Your task to perform on an android device: Open internet settings Image 0: 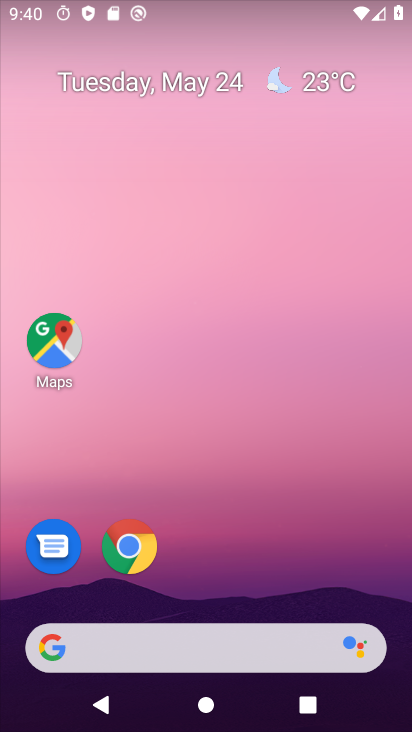
Step 0: drag from (256, 534) to (257, 0)
Your task to perform on an android device: Open internet settings Image 1: 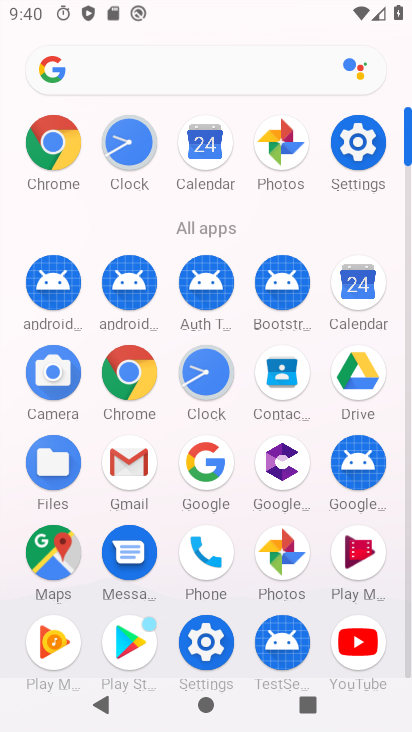
Step 1: click (357, 144)
Your task to perform on an android device: Open internet settings Image 2: 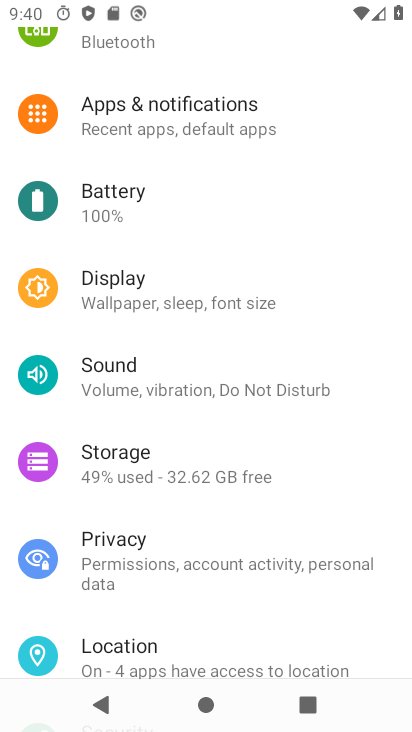
Step 2: drag from (166, 122) to (234, 578)
Your task to perform on an android device: Open internet settings Image 3: 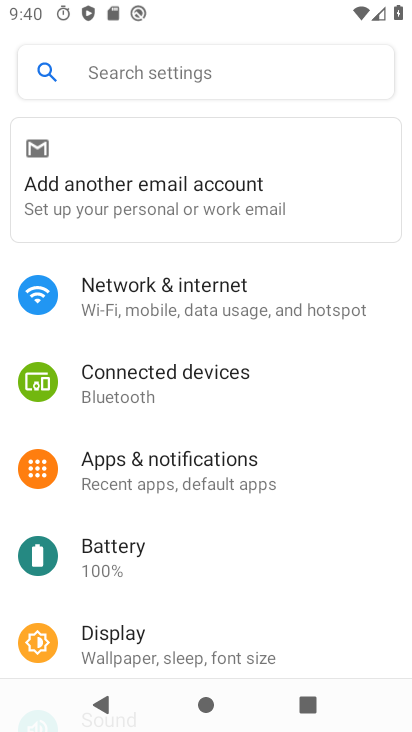
Step 3: click (178, 304)
Your task to perform on an android device: Open internet settings Image 4: 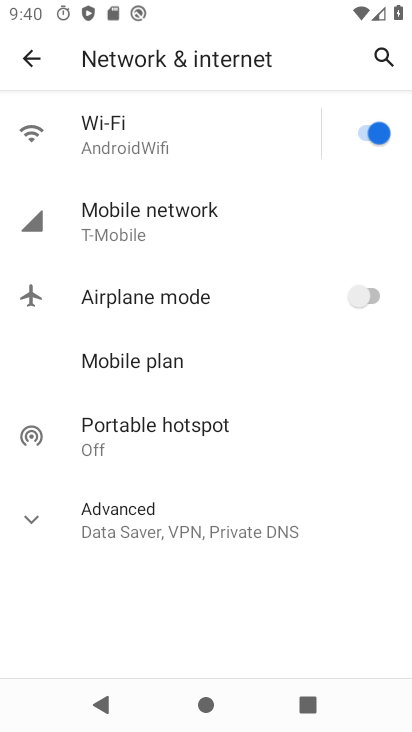
Step 4: click (133, 134)
Your task to perform on an android device: Open internet settings Image 5: 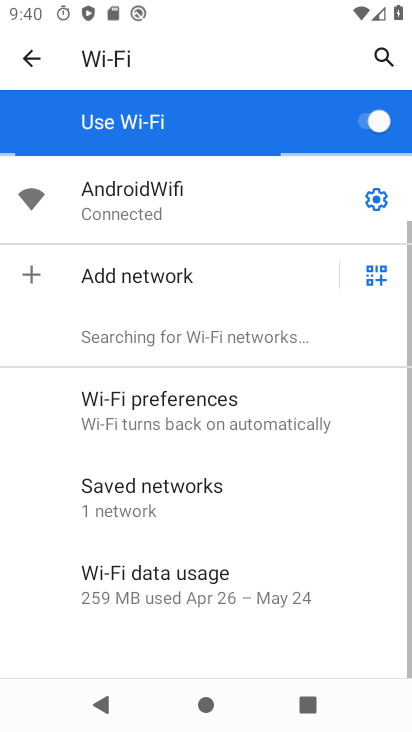
Step 5: click (157, 206)
Your task to perform on an android device: Open internet settings Image 6: 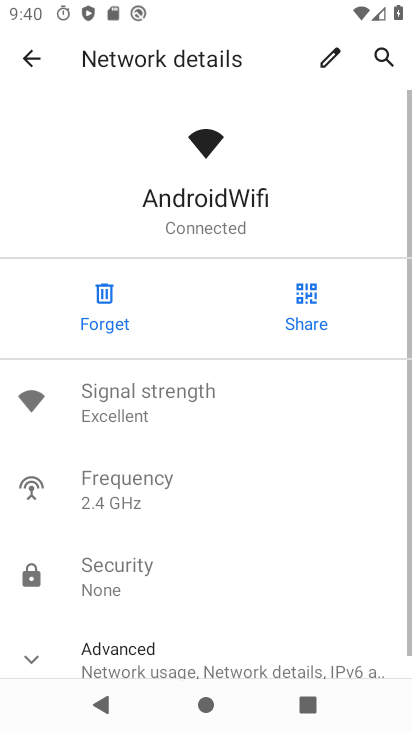
Step 6: task complete